Your task to perform on an android device: turn on location history Image 0: 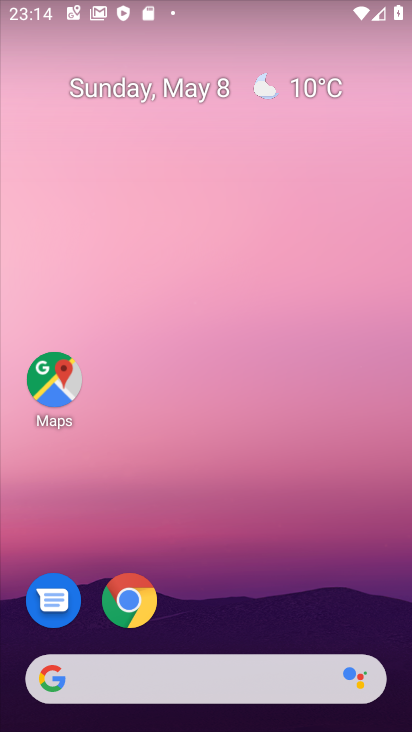
Step 0: drag from (205, 614) to (275, 140)
Your task to perform on an android device: turn on location history Image 1: 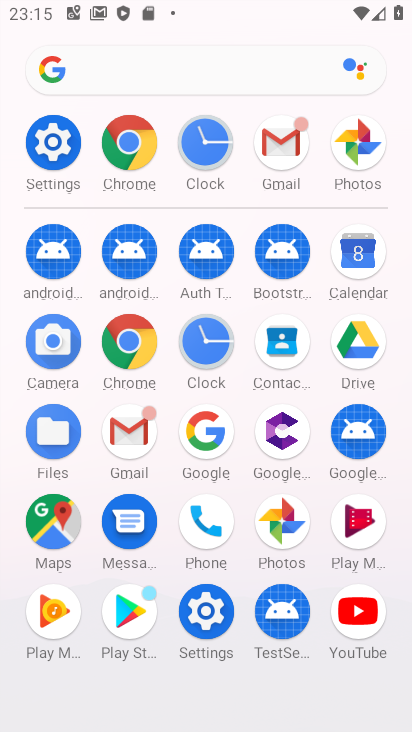
Step 1: click (40, 164)
Your task to perform on an android device: turn on location history Image 2: 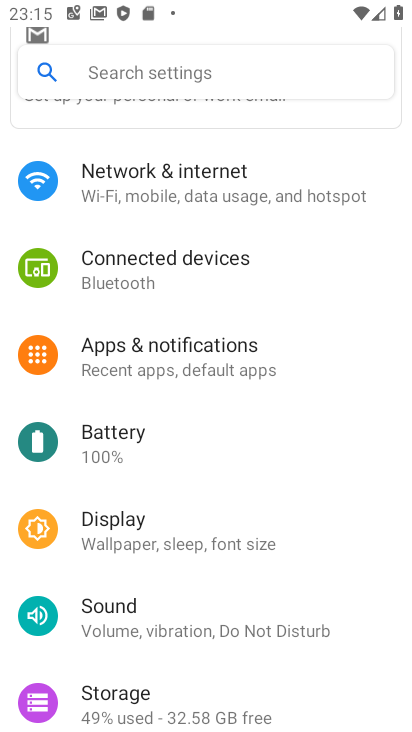
Step 2: drag from (154, 636) to (190, 254)
Your task to perform on an android device: turn on location history Image 3: 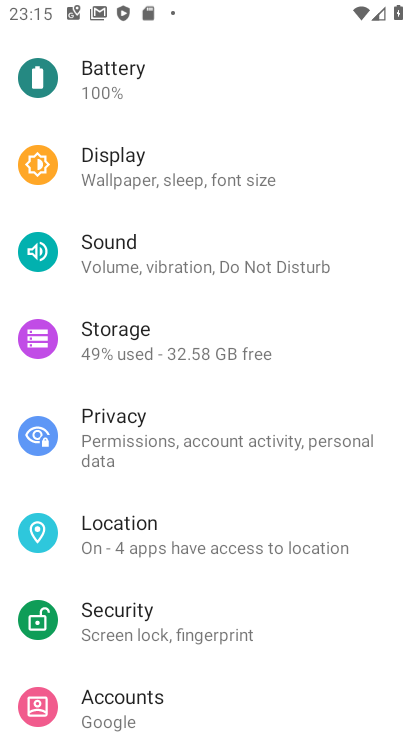
Step 3: click (131, 538)
Your task to perform on an android device: turn on location history Image 4: 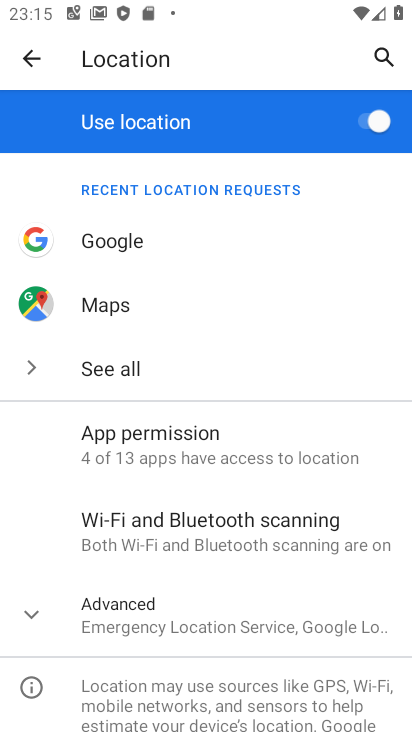
Step 4: click (140, 633)
Your task to perform on an android device: turn on location history Image 5: 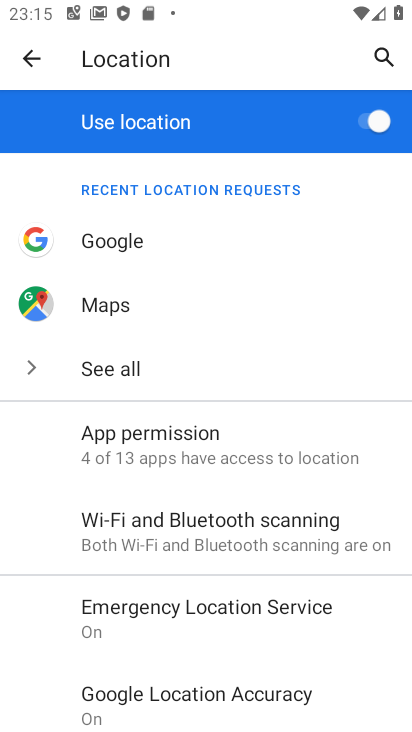
Step 5: drag from (140, 633) to (228, 140)
Your task to perform on an android device: turn on location history Image 6: 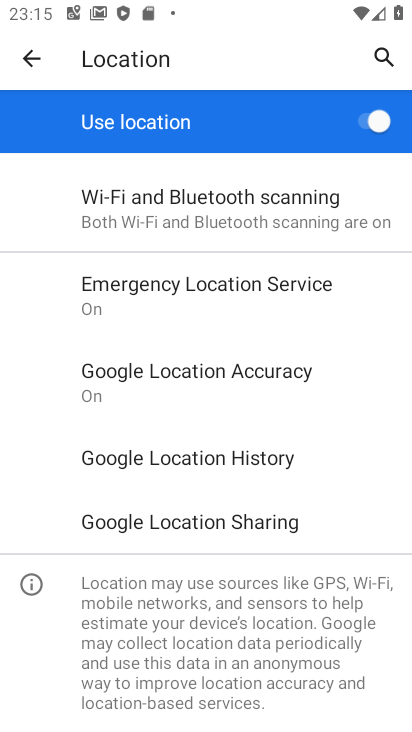
Step 6: click (233, 458)
Your task to perform on an android device: turn on location history Image 7: 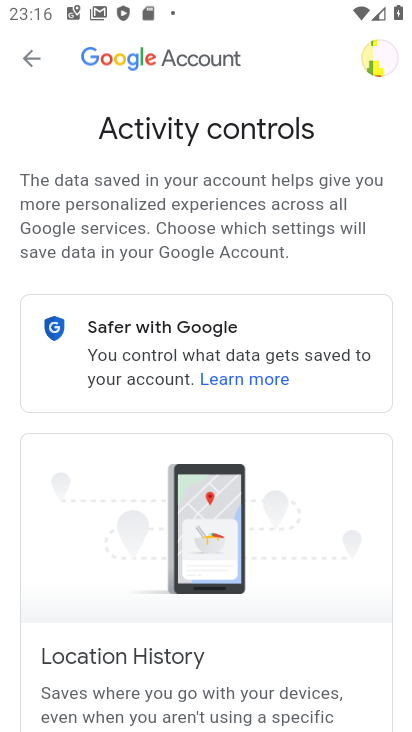
Step 7: task complete